Your task to perform on an android device: Go to calendar. Show me events next week Image 0: 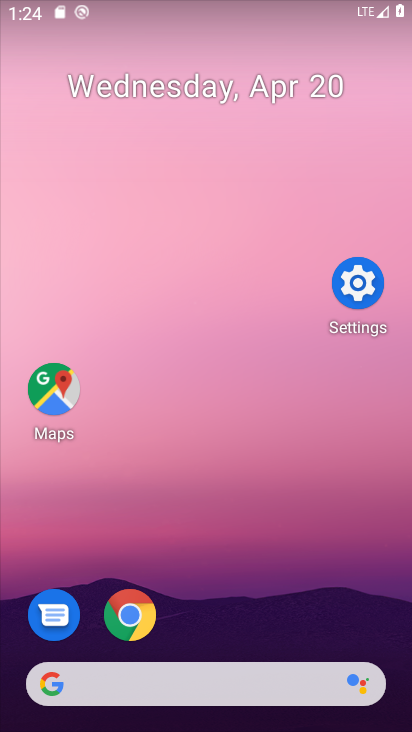
Step 0: drag from (185, 631) to (248, 29)
Your task to perform on an android device: Go to calendar. Show me events next week Image 1: 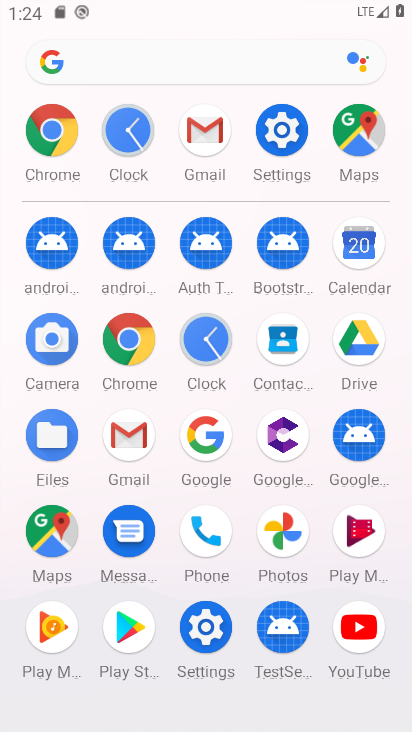
Step 1: click (362, 228)
Your task to perform on an android device: Go to calendar. Show me events next week Image 2: 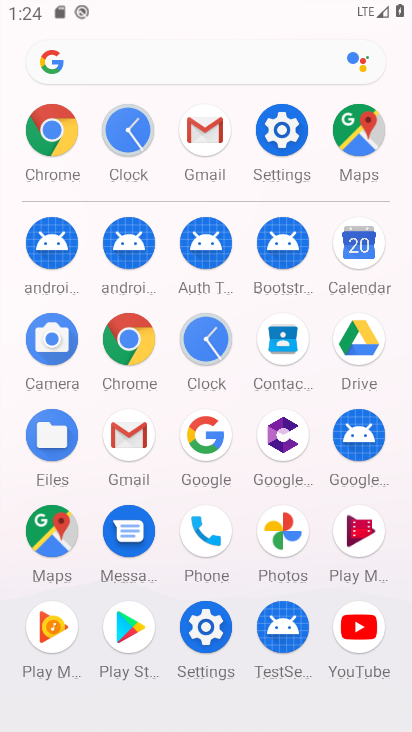
Step 2: click (362, 228)
Your task to perform on an android device: Go to calendar. Show me events next week Image 3: 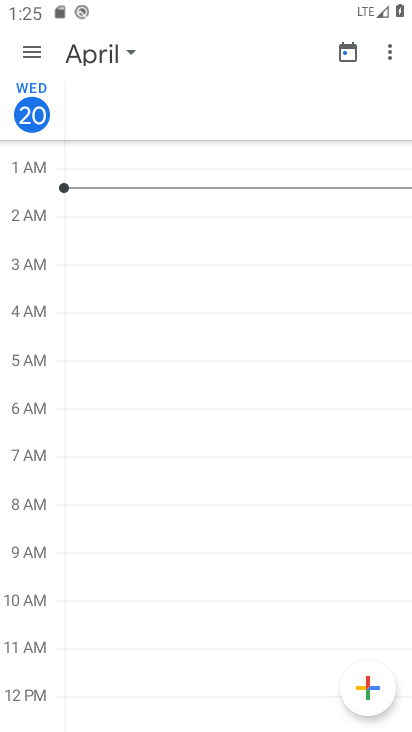
Step 3: drag from (190, 506) to (208, 208)
Your task to perform on an android device: Go to calendar. Show me events next week Image 4: 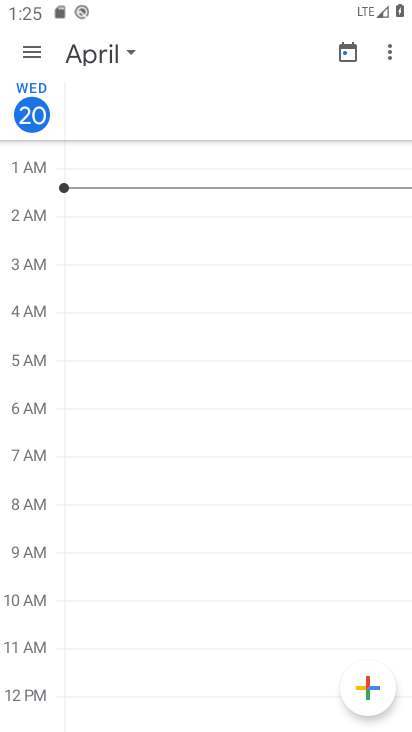
Step 4: drag from (87, 182) to (293, 552)
Your task to perform on an android device: Go to calendar. Show me events next week Image 5: 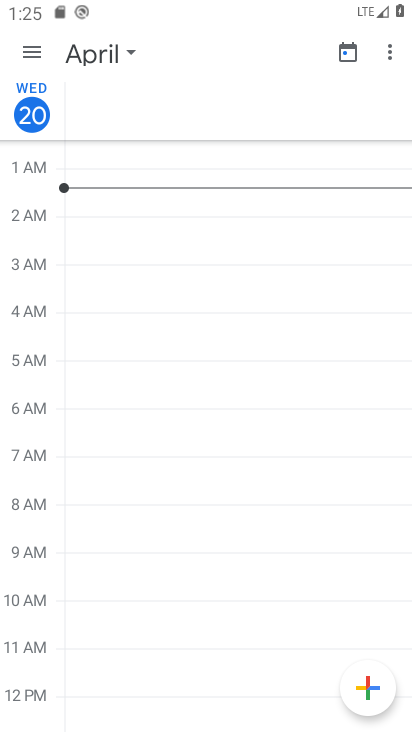
Step 5: click (99, 32)
Your task to perform on an android device: Go to calendar. Show me events next week Image 6: 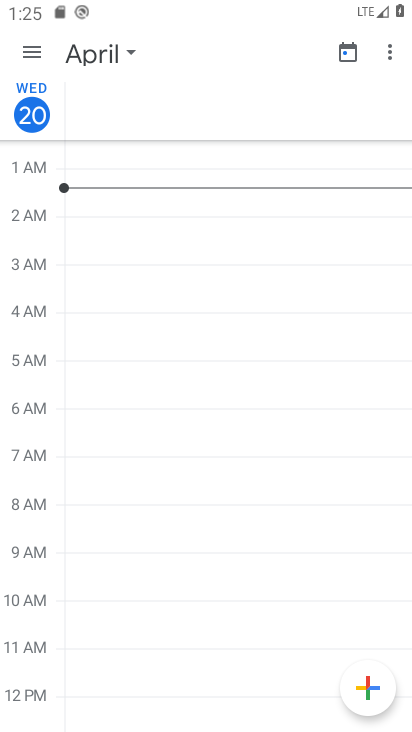
Step 6: task complete